Your task to perform on an android device: turn off data saver in the chrome app Image 0: 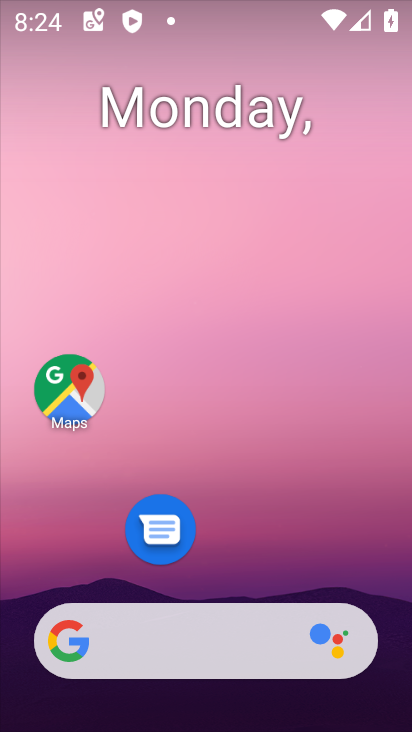
Step 0: drag from (243, 538) to (250, 151)
Your task to perform on an android device: turn off data saver in the chrome app Image 1: 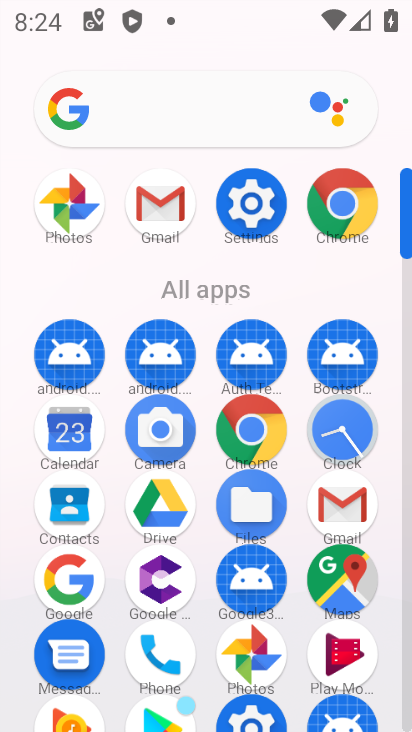
Step 1: click (333, 229)
Your task to perform on an android device: turn off data saver in the chrome app Image 2: 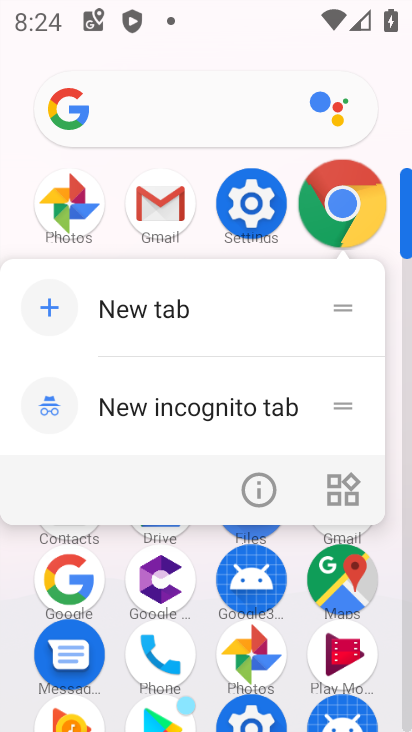
Step 2: click (332, 230)
Your task to perform on an android device: turn off data saver in the chrome app Image 3: 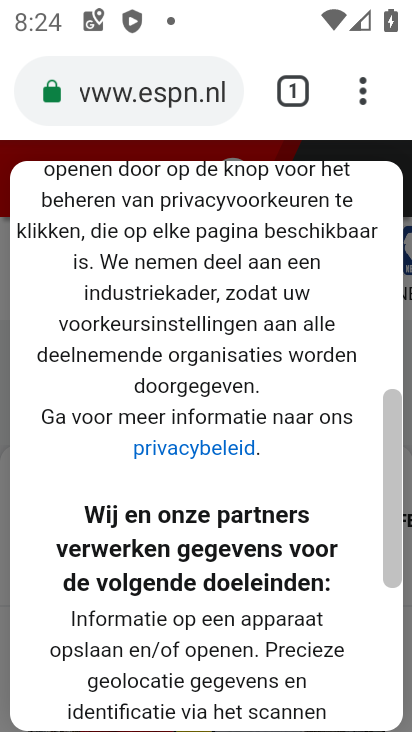
Step 3: drag from (356, 97) to (112, 576)
Your task to perform on an android device: turn off data saver in the chrome app Image 4: 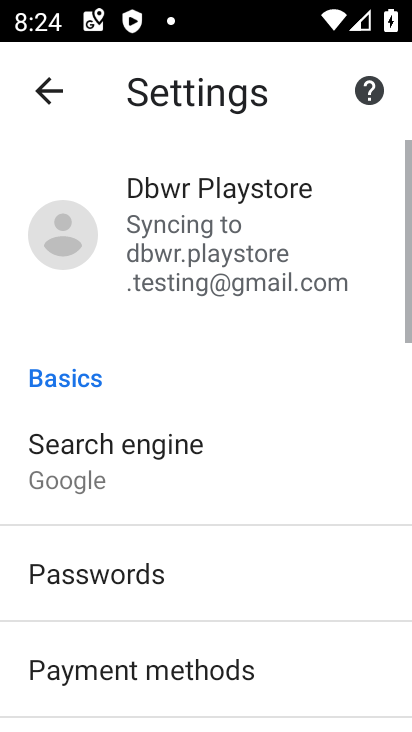
Step 4: drag from (198, 585) to (210, 253)
Your task to perform on an android device: turn off data saver in the chrome app Image 5: 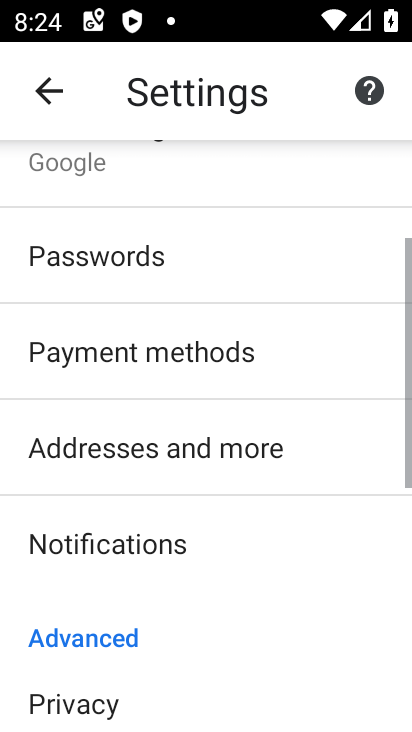
Step 5: drag from (233, 546) to (224, 267)
Your task to perform on an android device: turn off data saver in the chrome app Image 6: 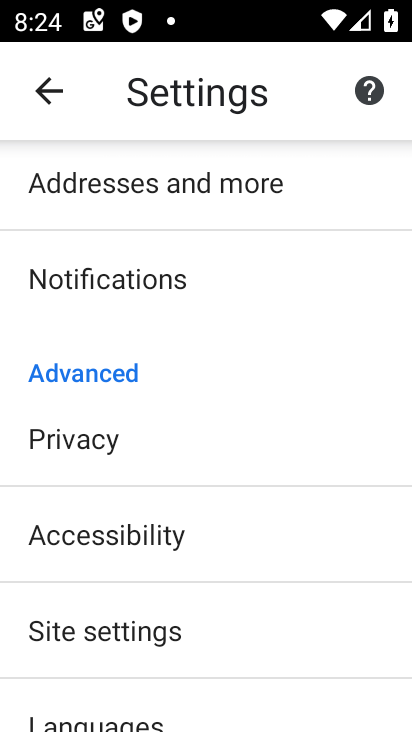
Step 6: drag from (183, 643) to (207, 337)
Your task to perform on an android device: turn off data saver in the chrome app Image 7: 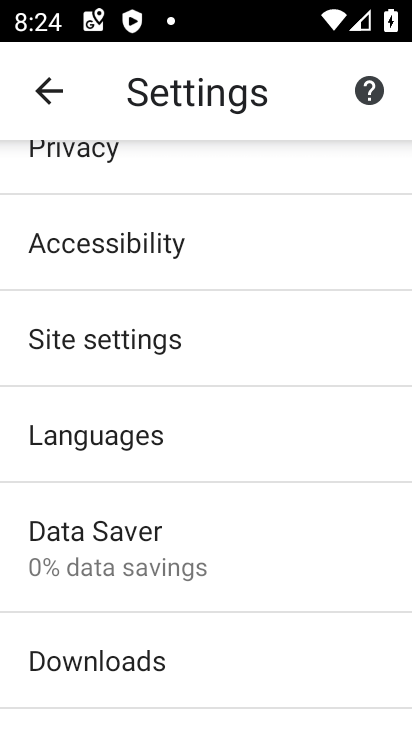
Step 7: click (126, 548)
Your task to perform on an android device: turn off data saver in the chrome app Image 8: 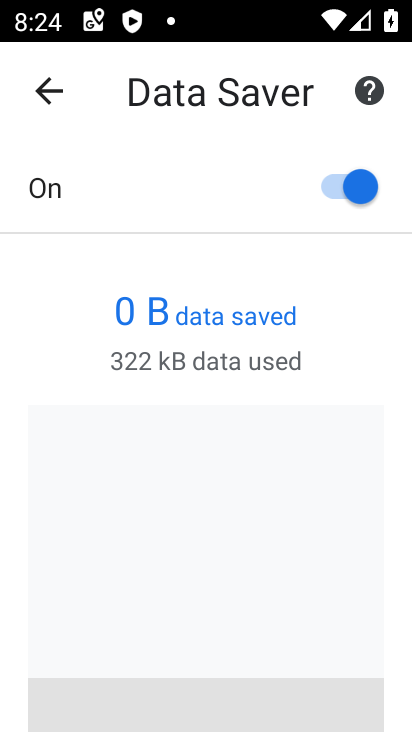
Step 8: click (328, 189)
Your task to perform on an android device: turn off data saver in the chrome app Image 9: 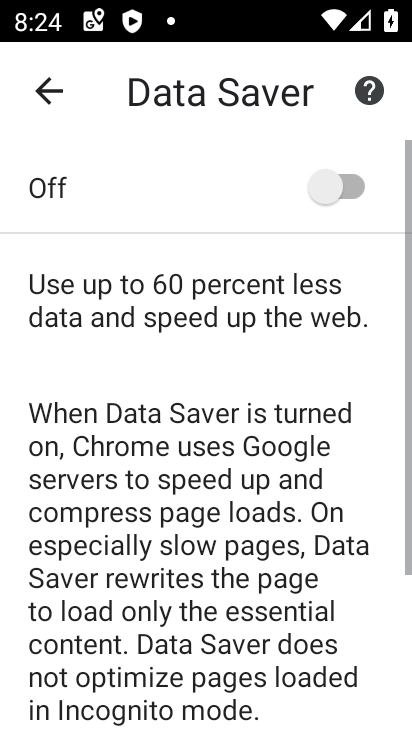
Step 9: task complete